Your task to perform on an android device: turn on javascript in the chrome app Image 0: 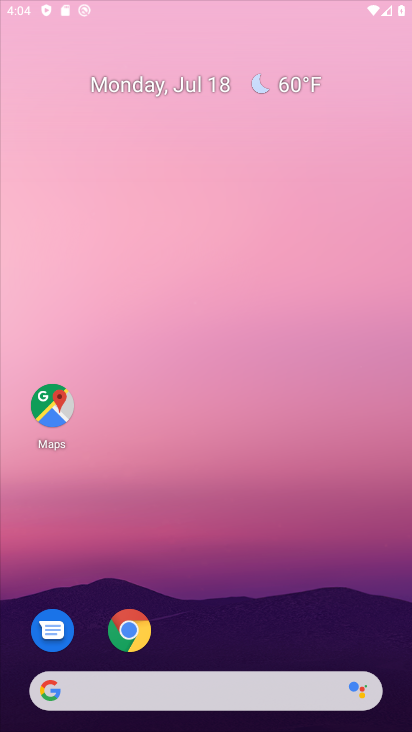
Step 0: drag from (183, 390) to (183, 231)
Your task to perform on an android device: turn on javascript in the chrome app Image 1: 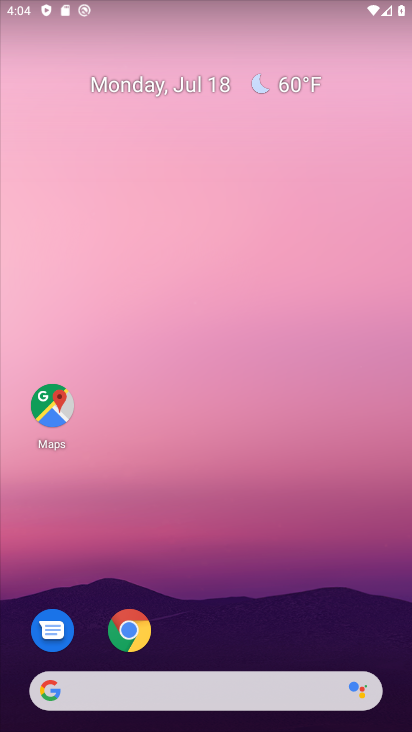
Step 1: drag from (347, 549) to (283, 143)
Your task to perform on an android device: turn on javascript in the chrome app Image 2: 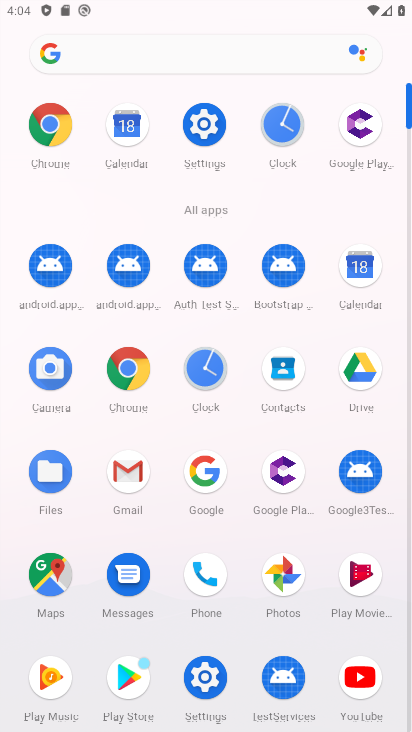
Step 2: drag from (255, 681) to (255, 164)
Your task to perform on an android device: turn on javascript in the chrome app Image 3: 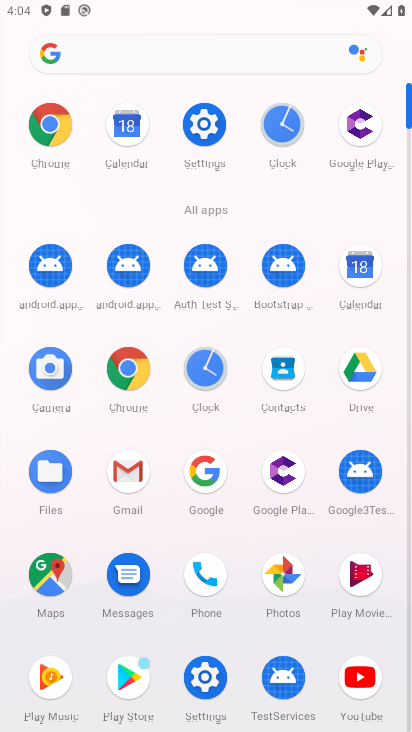
Step 3: click (193, 131)
Your task to perform on an android device: turn on javascript in the chrome app Image 4: 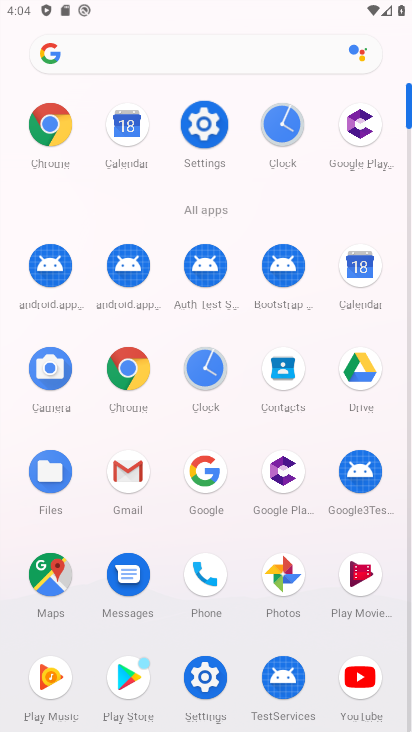
Step 4: click (192, 127)
Your task to perform on an android device: turn on javascript in the chrome app Image 5: 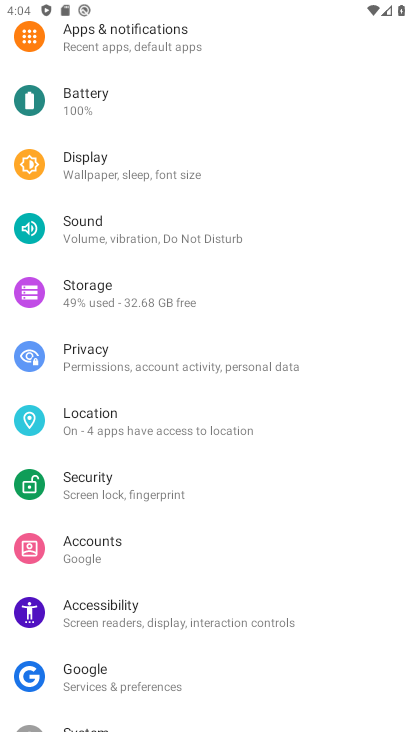
Step 5: drag from (140, 551) to (107, 281)
Your task to perform on an android device: turn on javascript in the chrome app Image 6: 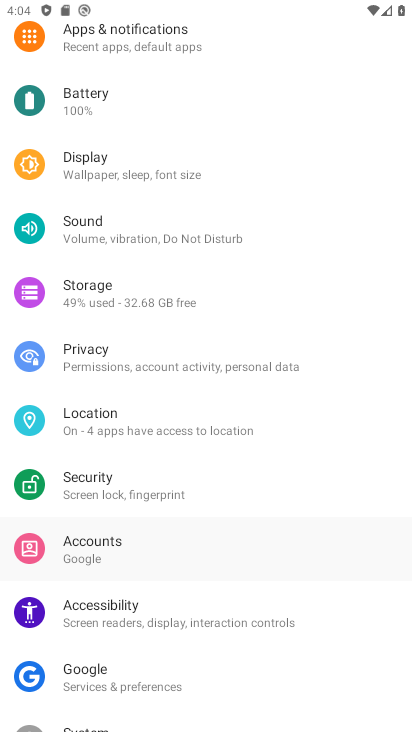
Step 6: drag from (112, 557) to (118, 391)
Your task to perform on an android device: turn on javascript in the chrome app Image 7: 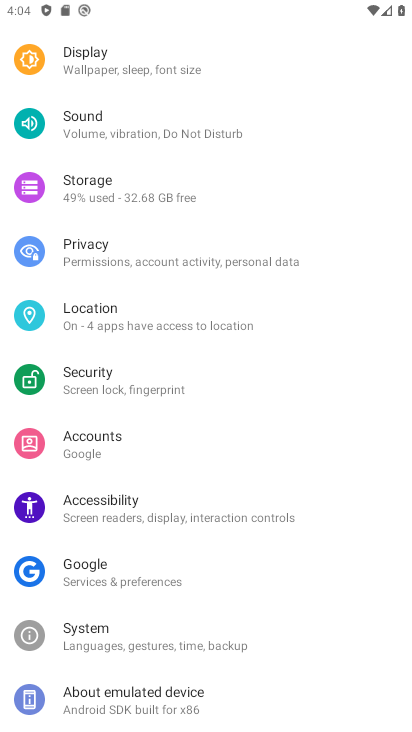
Step 7: press back button
Your task to perform on an android device: turn on javascript in the chrome app Image 8: 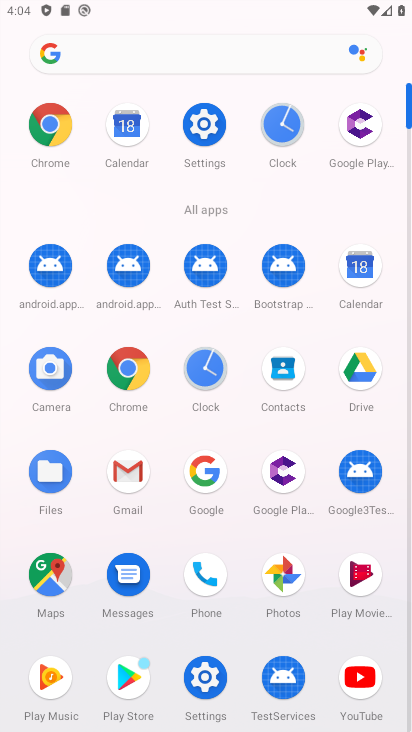
Step 8: drag from (259, 635) to (218, 316)
Your task to perform on an android device: turn on javascript in the chrome app Image 9: 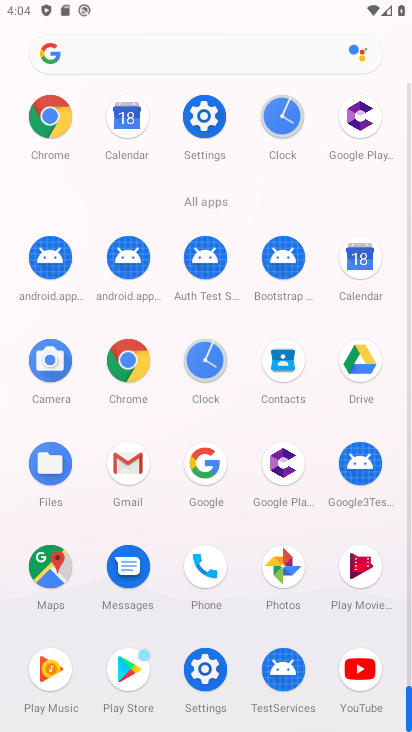
Step 9: click (146, 362)
Your task to perform on an android device: turn on javascript in the chrome app Image 10: 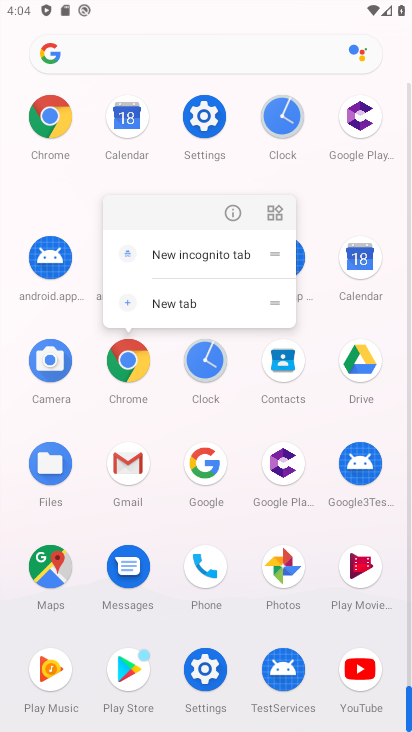
Step 10: click (131, 371)
Your task to perform on an android device: turn on javascript in the chrome app Image 11: 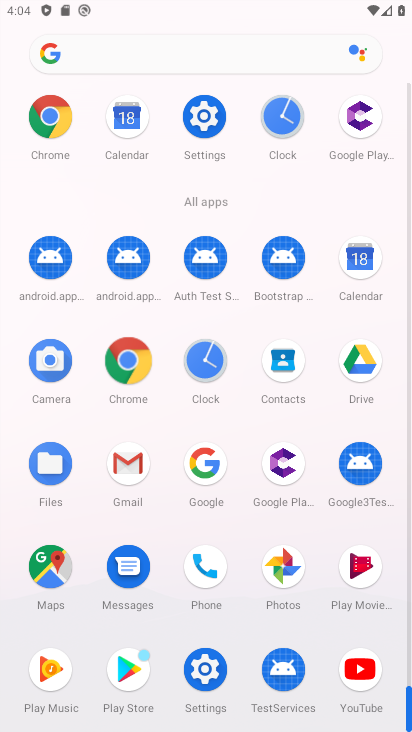
Step 11: click (130, 370)
Your task to perform on an android device: turn on javascript in the chrome app Image 12: 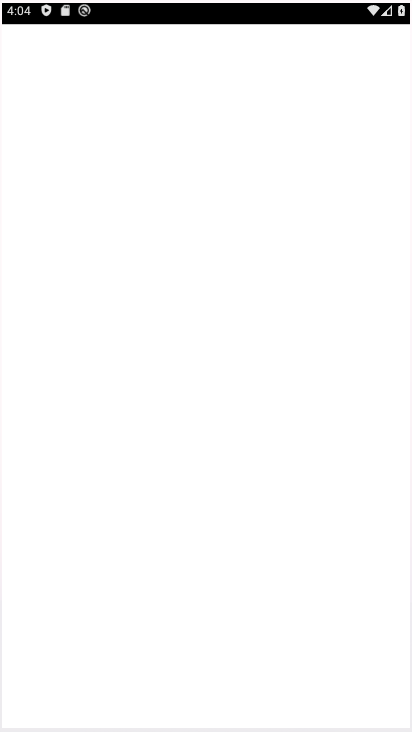
Step 12: click (130, 370)
Your task to perform on an android device: turn on javascript in the chrome app Image 13: 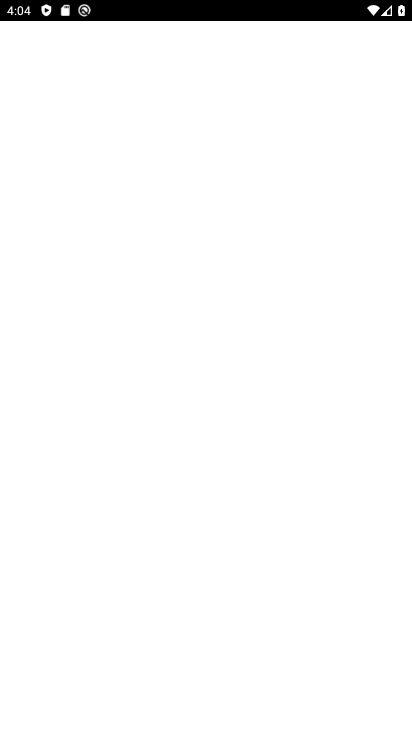
Step 13: click (133, 369)
Your task to perform on an android device: turn on javascript in the chrome app Image 14: 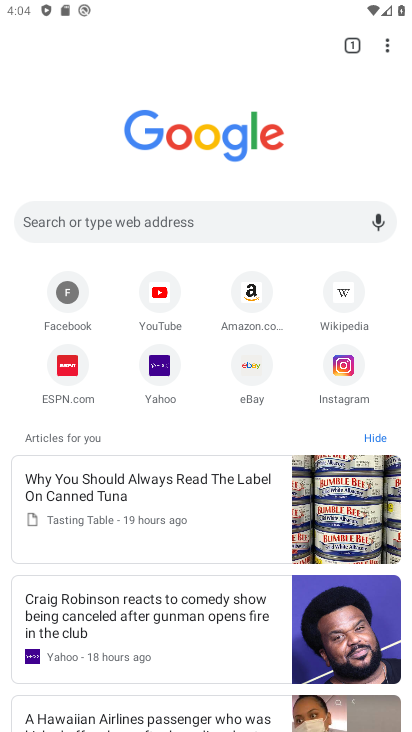
Step 14: click (382, 43)
Your task to perform on an android device: turn on javascript in the chrome app Image 15: 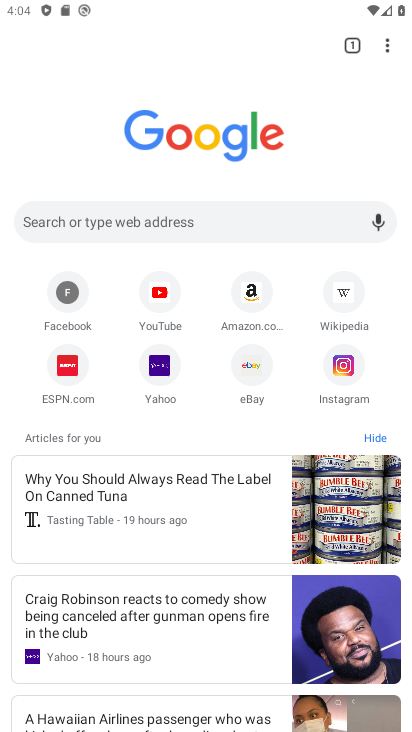
Step 15: drag from (381, 47) to (251, 384)
Your task to perform on an android device: turn on javascript in the chrome app Image 16: 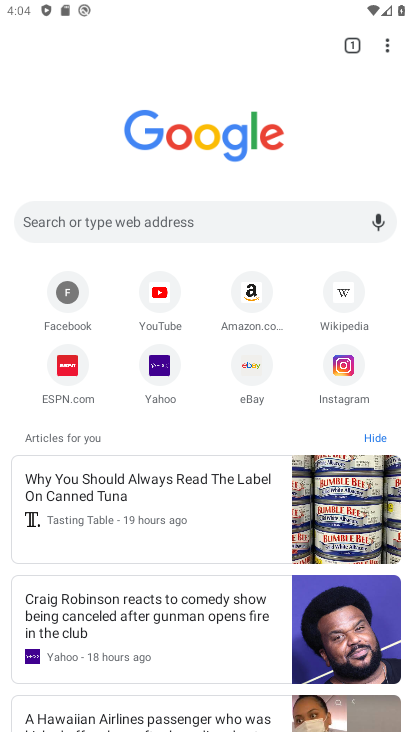
Step 16: click (225, 398)
Your task to perform on an android device: turn on javascript in the chrome app Image 17: 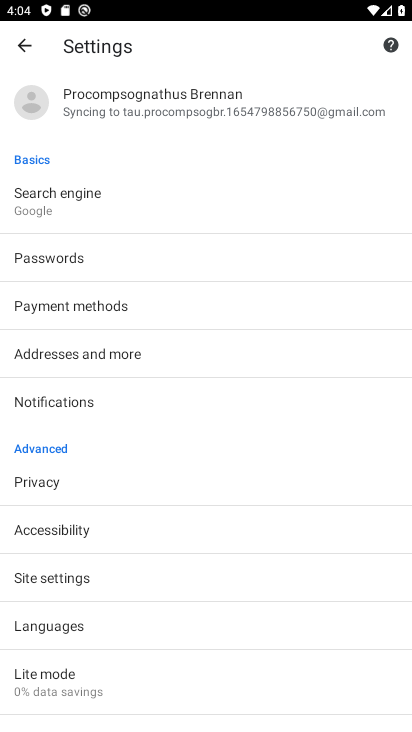
Step 17: click (39, 573)
Your task to perform on an android device: turn on javascript in the chrome app Image 18: 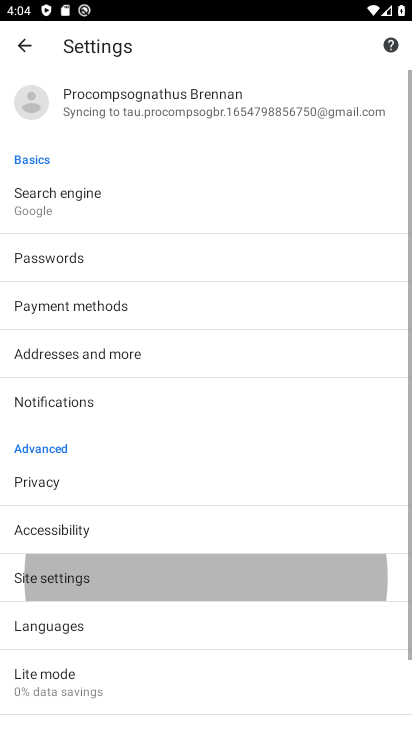
Step 18: click (39, 573)
Your task to perform on an android device: turn on javascript in the chrome app Image 19: 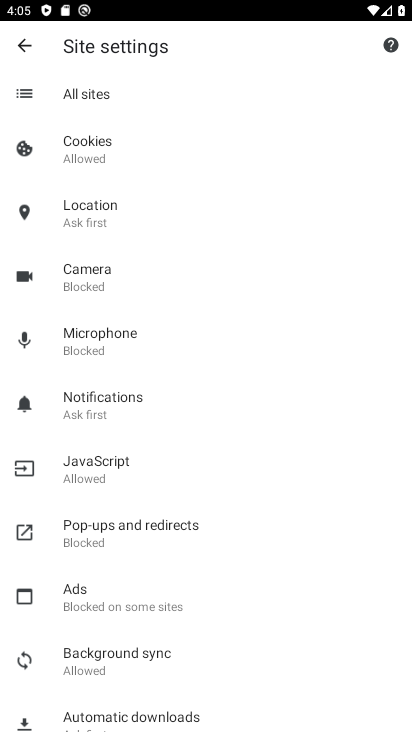
Step 19: click (79, 475)
Your task to perform on an android device: turn on javascript in the chrome app Image 20: 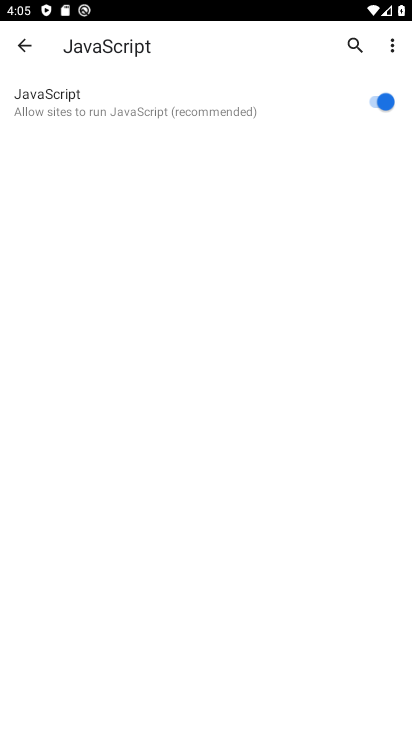
Step 20: task complete